Your task to perform on an android device: toggle show notifications on the lock screen Image 0: 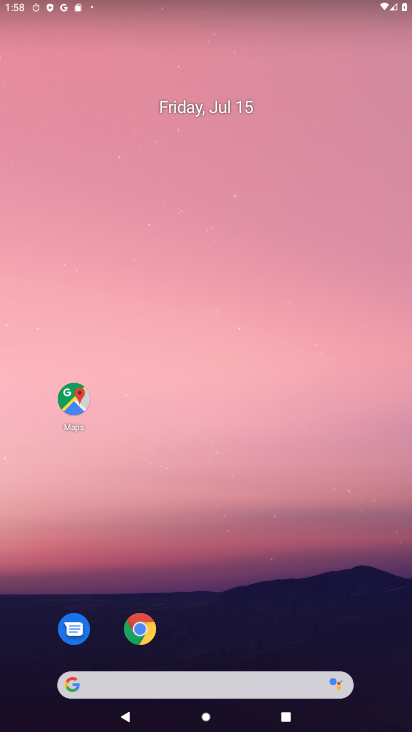
Step 0: drag from (226, 507) to (229, 80)
Your task to perform on an android device: toggle show notifications on the lock screen Image 1: 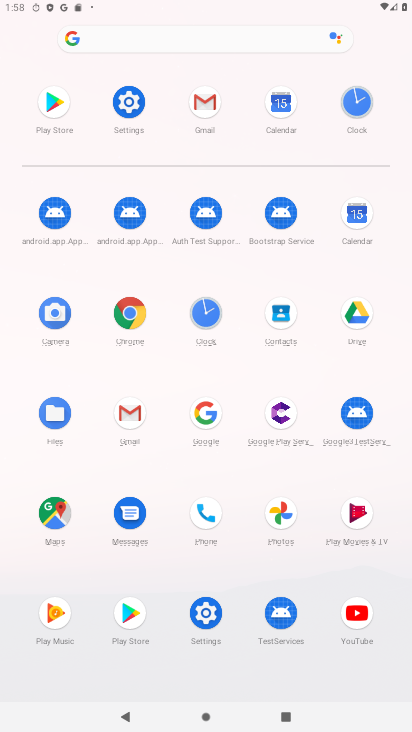
Step 1: click (127, 112)
Your task to perform on an android device: toggle show notifications on the lock screen Image 2: 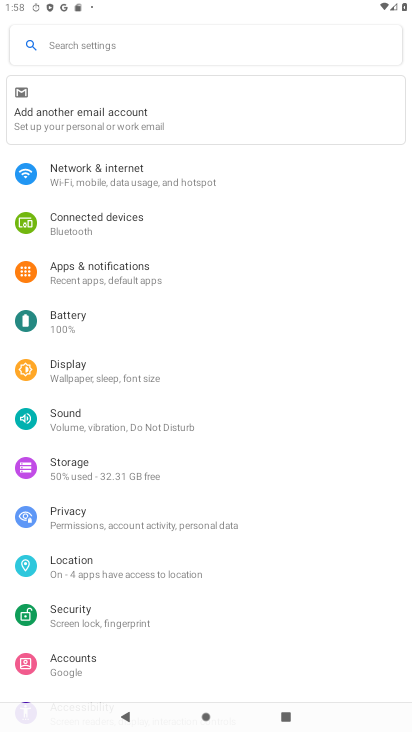
Step 2: click (96, 271)
Your task to perform on an android device: toggle show notifications on the lock screen Image 3: 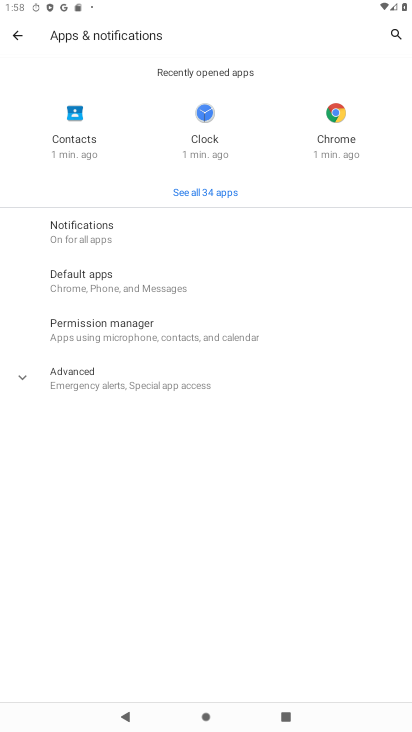
Step 3: click (68, 242)
Your task to perform on an android device: toggle show notifications on the lock screen Image 4: 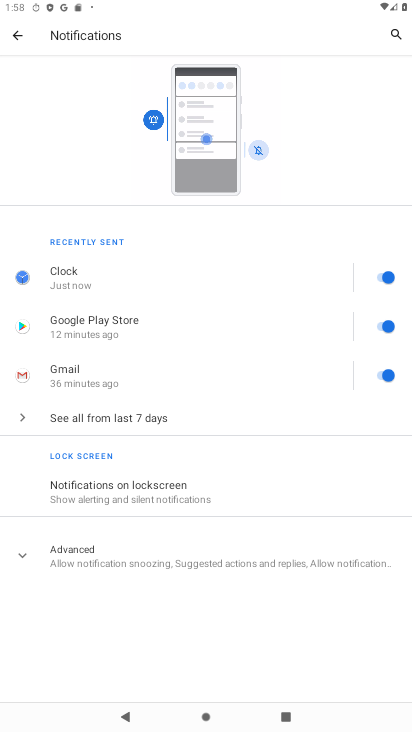
Step 4: click (125, 498)
Your task to perform on an android device: toggle show notifications on the lock screen Image 5: 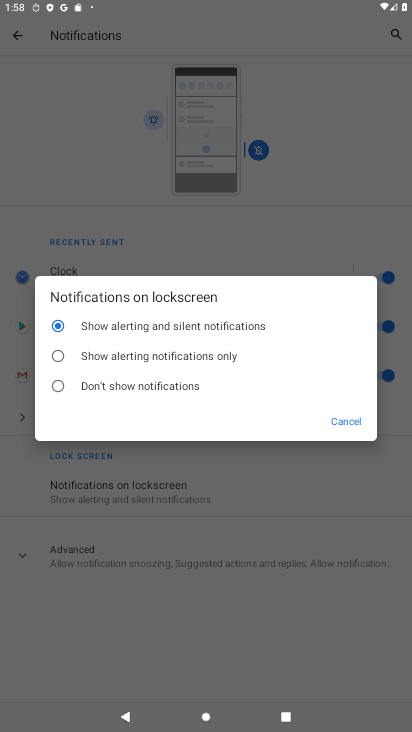
Step 5: click (59, 392)
Your task to perform on an android device: toggle show notifications on the lock screen Image 6: 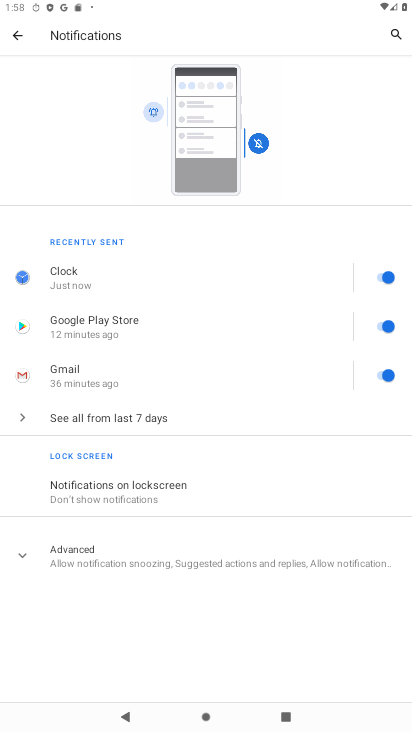
Step 6: task complete